Your task to perform on an android device: snooze an email in the gmail app Image 0: 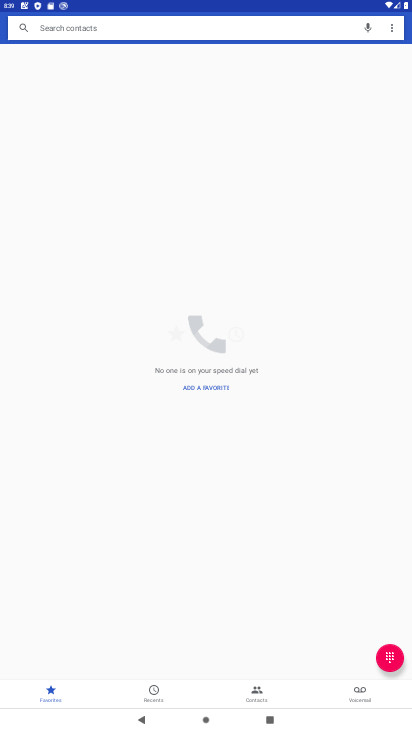
Step 0: press home button
Your task to perform on an android device: snooze an email in the gmail app Image 1: 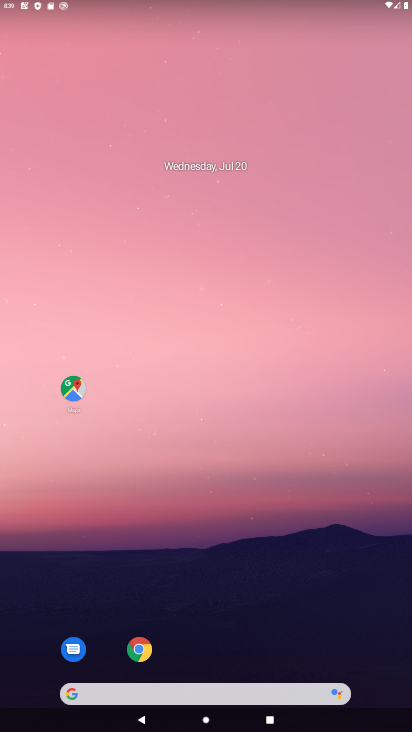
Step 1: drag from (241, 658) to (225, 198)
Your task to perform on an android device: snooze an email in the gmail app Image 2: 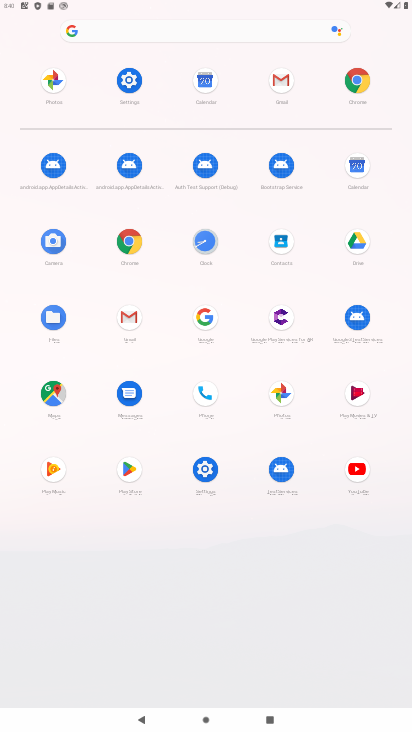
Step 2: click (285, 76)
Your task to perform on an android device: snooze an email in the gmail app Image 3: 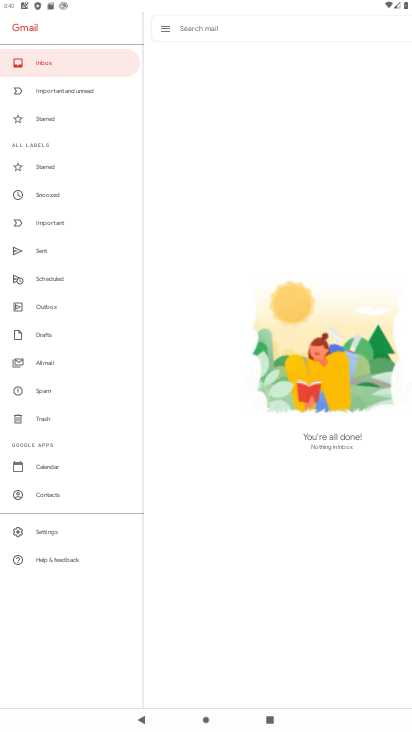
Step 3: task complete